Your task to perform on an android device: Open Android settings Image 0: 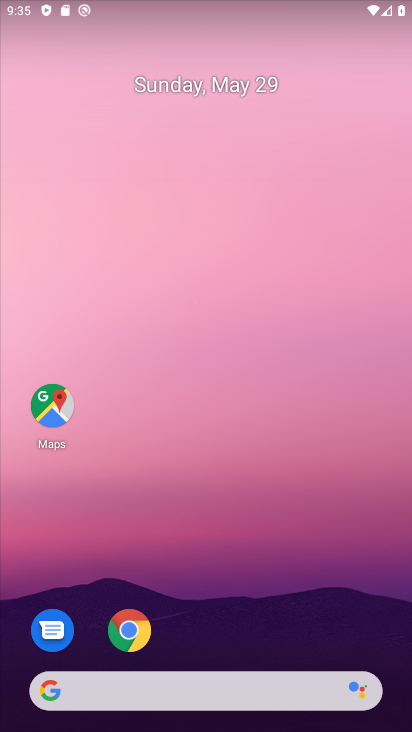
Step 0: drag from (206, 652) to (293, 181)
Your task to perform on an android device: Open Android settings Image 1: 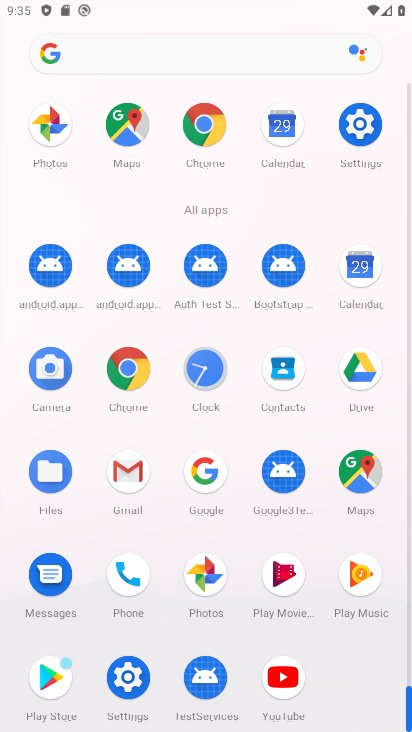
Step 1: click (135, 673)
Your task to perform on an android device: Open Android settings Image 2: 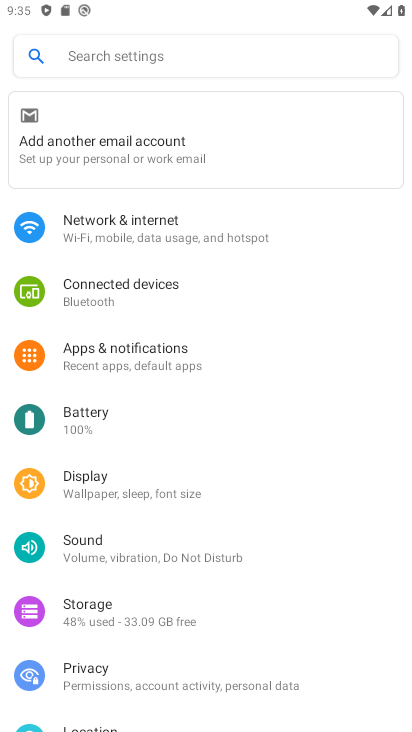
Step 2: task complete